Your task to perform on an android device: Open calendar and show me the second week of next month Image 0: 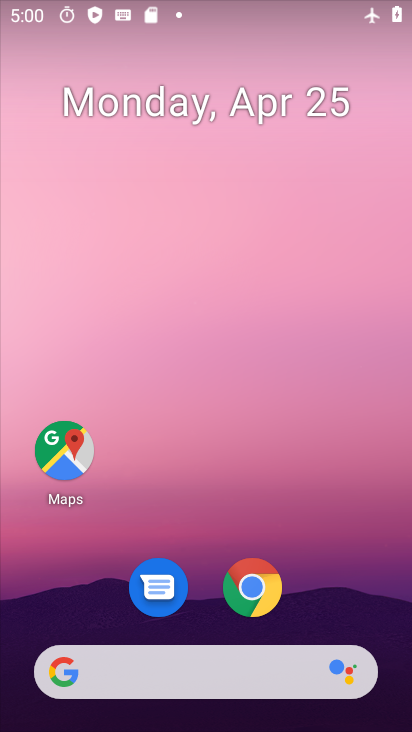
Step 0: drag from (332, 451) to (334, 63)
Your task to perform on an android device: Open calendar and show me the second week of next month Image 1: 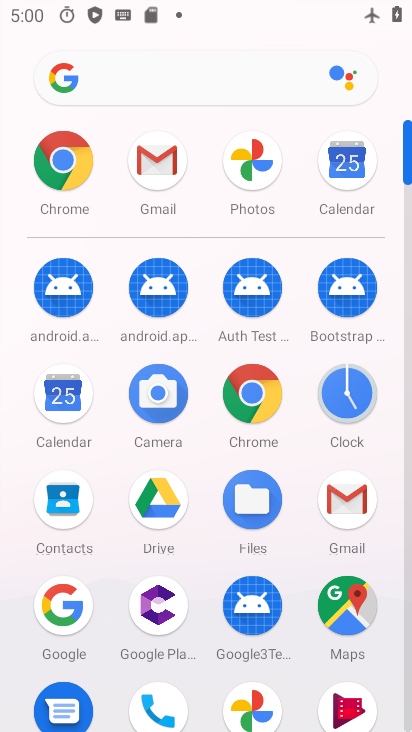
Step 1: click (340, 159)
Your task to perform on an android device: Open calendar and show me the second week of next month Image 2: 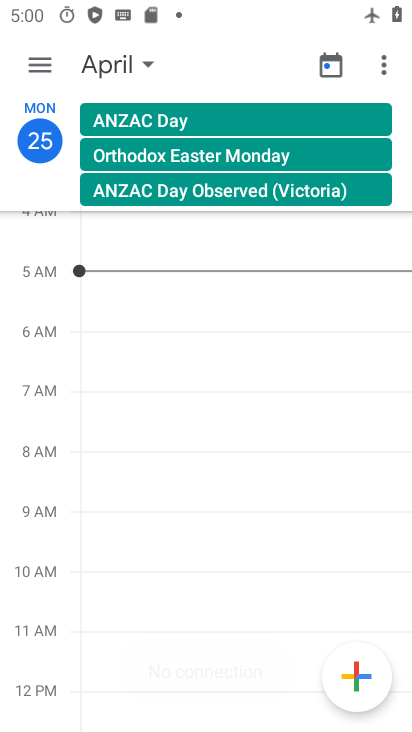
Step 2: click (341, 158)
Your task to perform on an android device: Open calendar and show me the second week of next month Image 3: 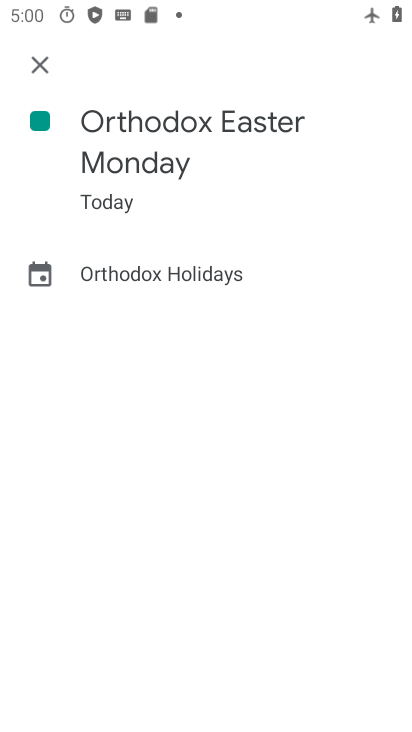
Step 3: click (27, 57)
Your task to perform on an android device: Open calendar and show me the second week of next month Image 4: 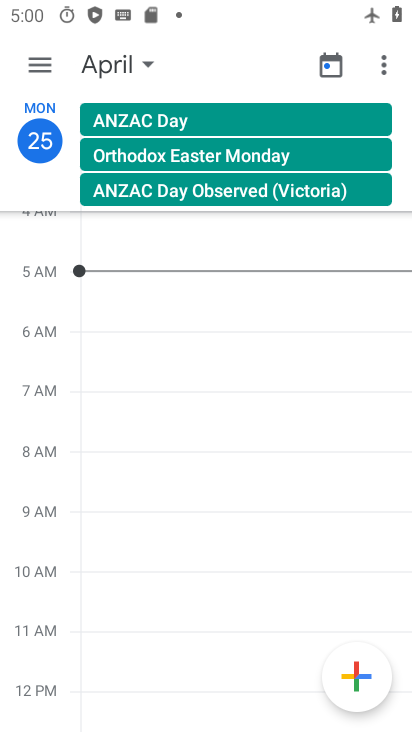
Step 4: click (139, 63)
Your task to perform on an android device: Open calendar and show me the second week of next month Image 5: 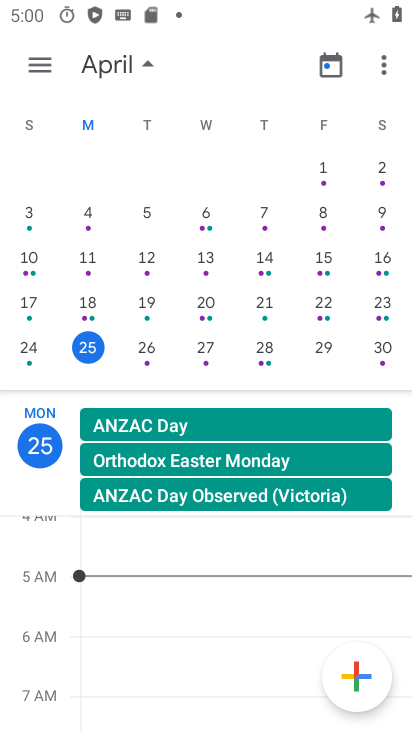
Step 5: drag from (282, 285) to (9, 269)
Your task to perform on an android device: Open calendar and show me the second week of next month Image 6: 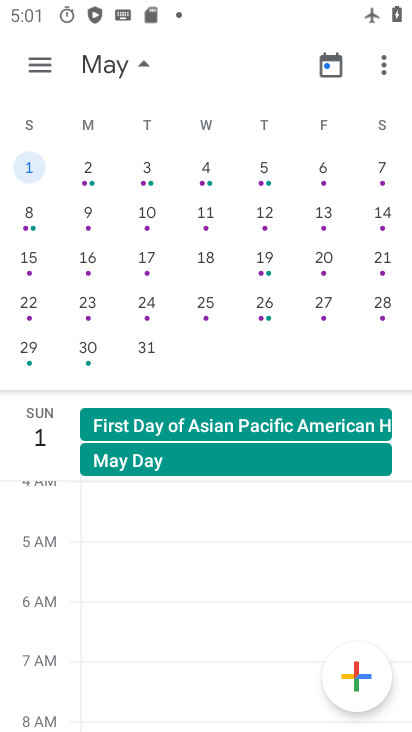
Step 6: click (142, 215)
Your task to perform on an android device: Open calendar and show me the second week of next month Image 7: 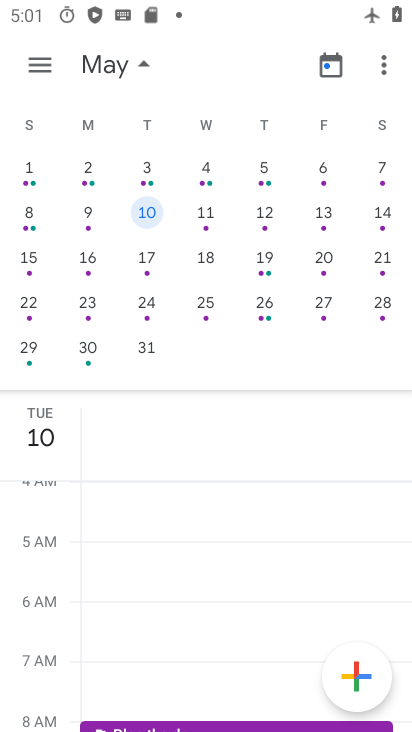
Step 7: task complete